Your task to perform on an android device: Open location settings Image 0: 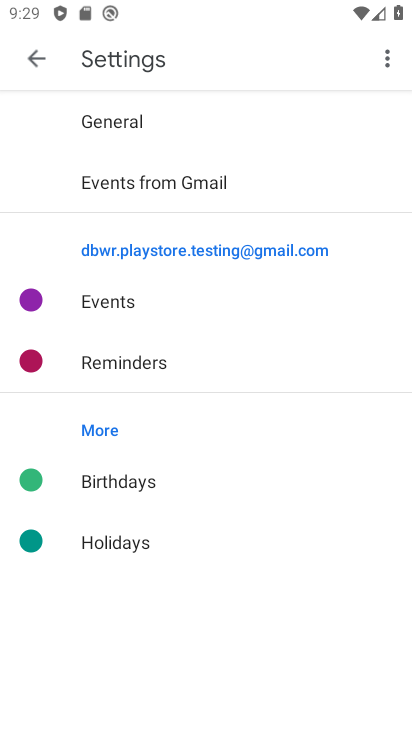
Step 0: press home button
Your task to perform on an android device: Open location settings Image 1: 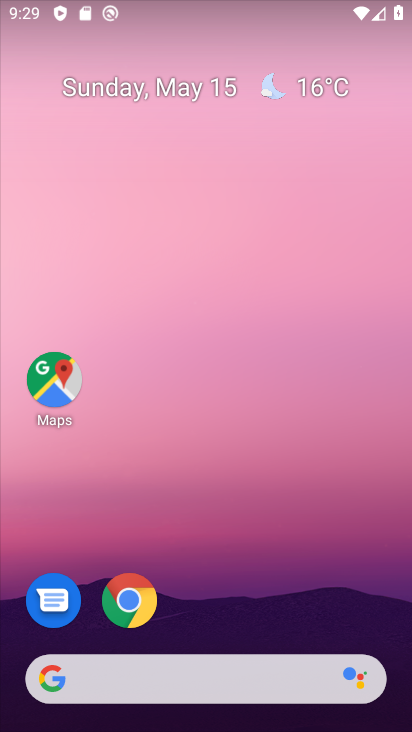
Step 1: click (170, 88)
Your task to perform on an android device: Open location settings Image 2: 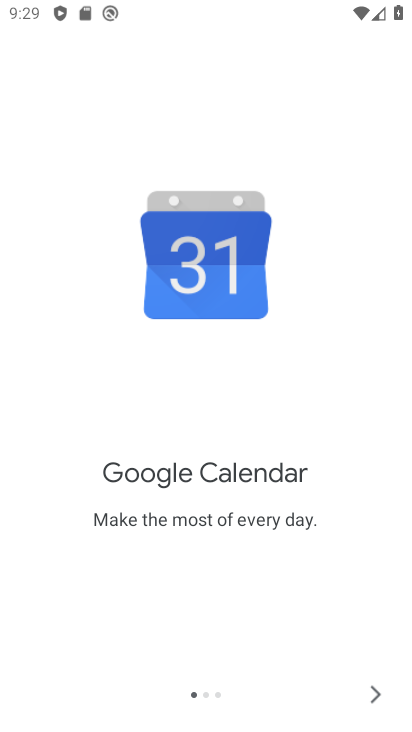
Step 2: press home button
Your task to perform on an android device: Open location settings Image 3: 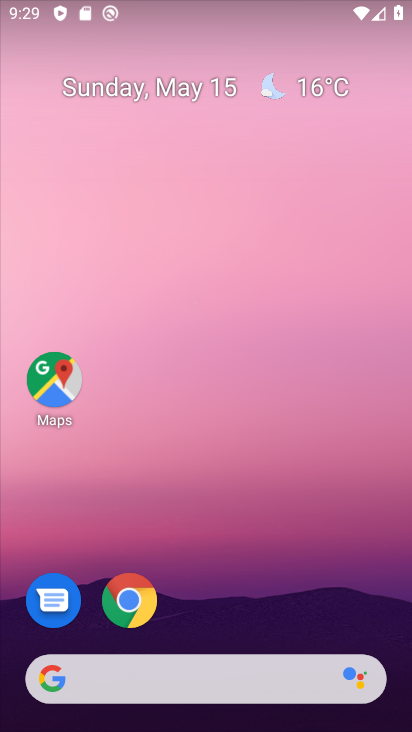
Step 3: drag from (217, 656) to (283, 4)
Your task to perform on an android device: Open location settings Image 4: 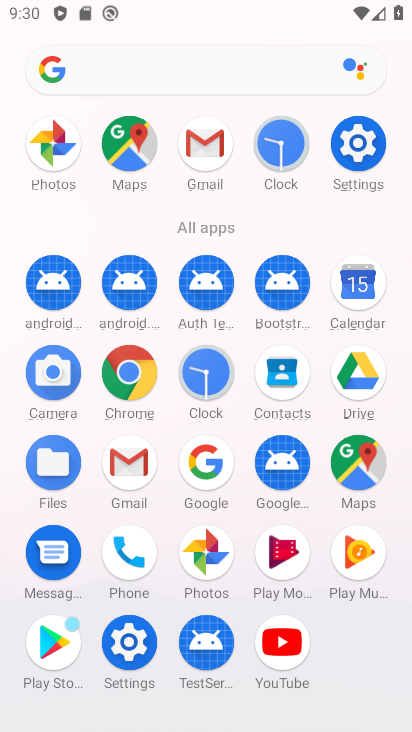
Step 4: click (358, 139)
Your task to perform on an android device: Open location settings Image 5: 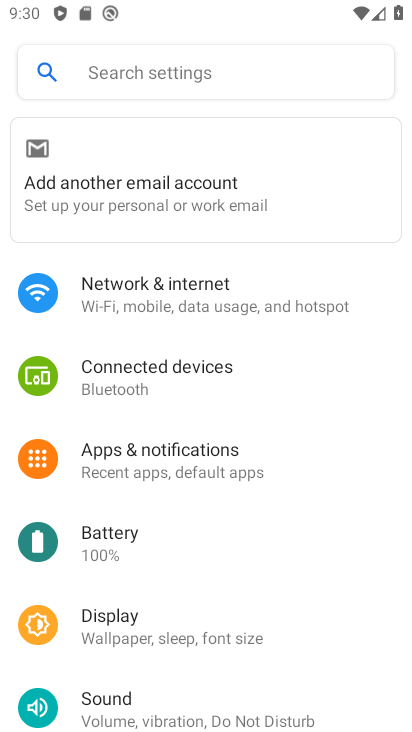
Step 5: drag from (224, 524) to (191, 77)
Your task to perform on an android device: Open location settings Image 6: 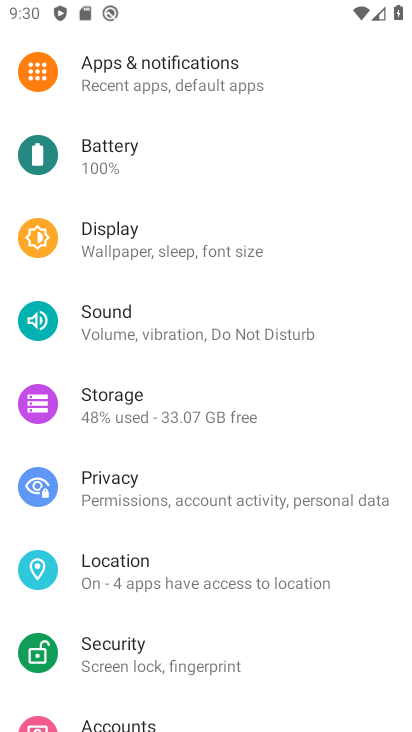
Step 6: click (77, 571)
Your task to perform on an android device: Open location settings Image 7: 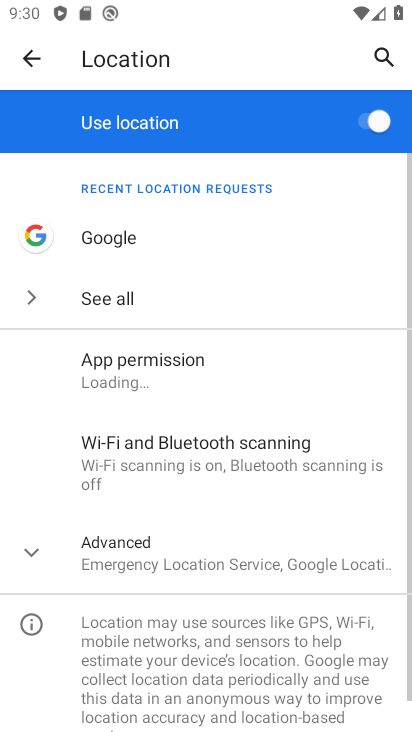
Step 7: click (152, 539)
Your task to perform on an android device: Open location settings Image 8: 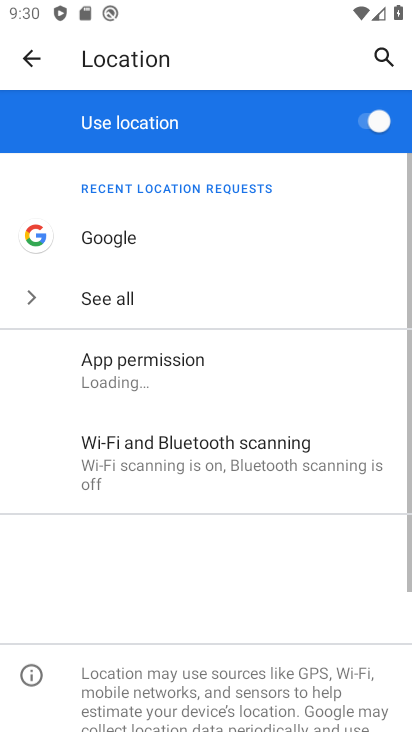
Step 8: task complete